Your task to perform on an android device: When is my next meeting? Image 0: 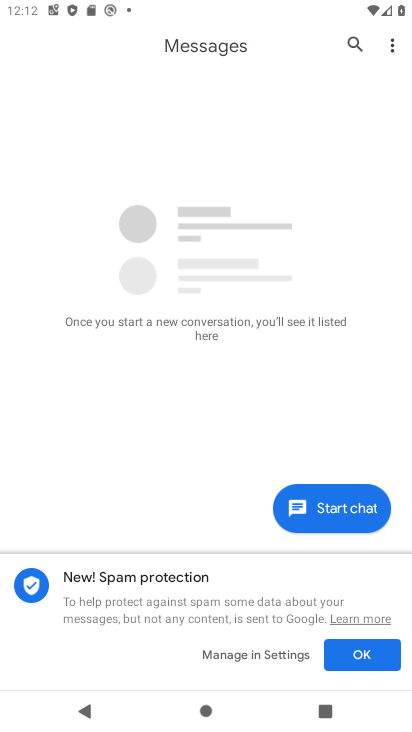
Step 0: press home button
Your task to perform on an android device: When is my next meeting? Image 1: 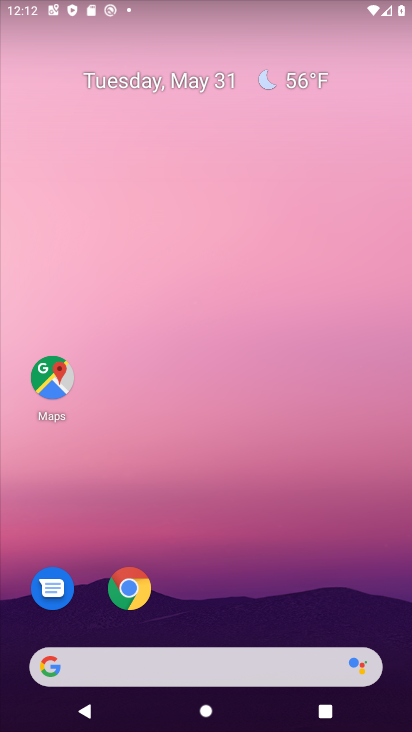
Step 1: drag from (196, 598) to (255, 2)
Your task to perform on an android device: When is my next meeting? Image 2: 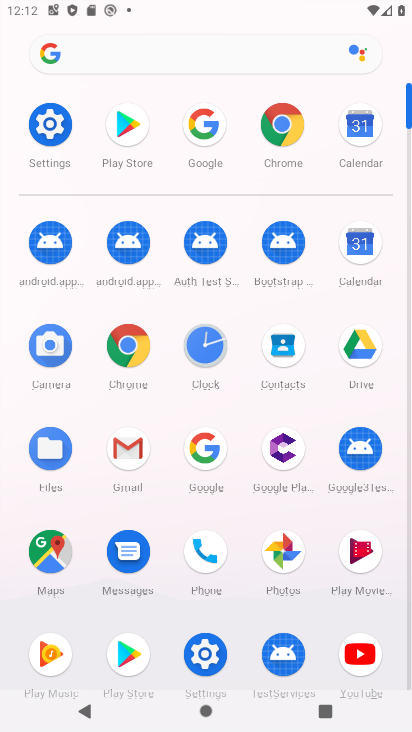
Step 2: click (354, 263)
Your task to perform on an android device: When is my next meeting? Image 3: 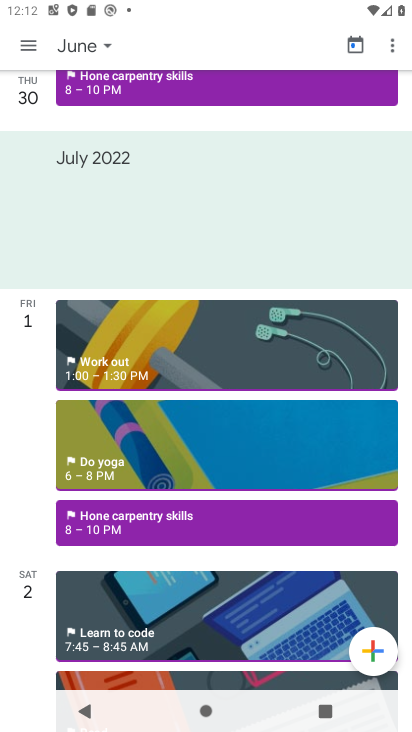
Step 3: task complete